Your task to perform on an android device: Open the map Image 0: 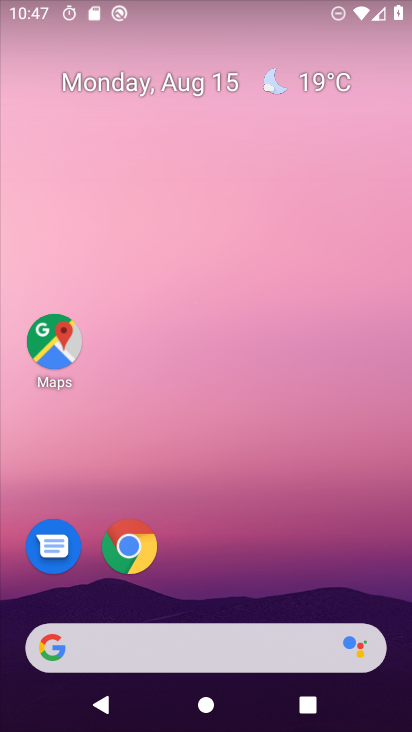
Step 0: drag from (223, 600) to (173, 109)
Your task to perform on an android device: Open the map Image 1: 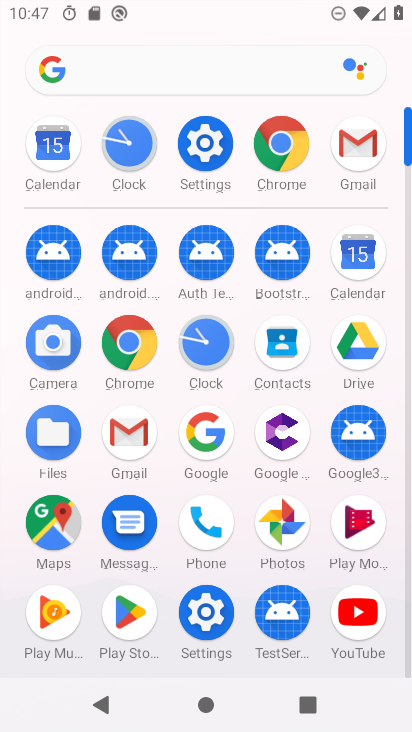
Step 1: click (55, 525)
Your task to perform on an android device: Open the map Image 2: 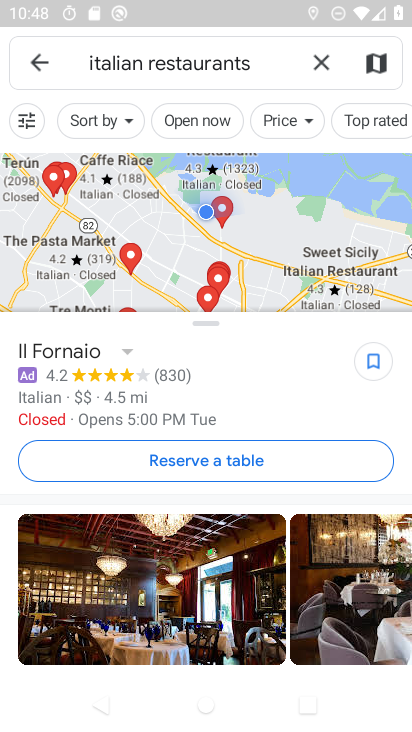
Step 2: task complete